Your task to perform on an android device: Search for the best movies of 2019  Image 0: 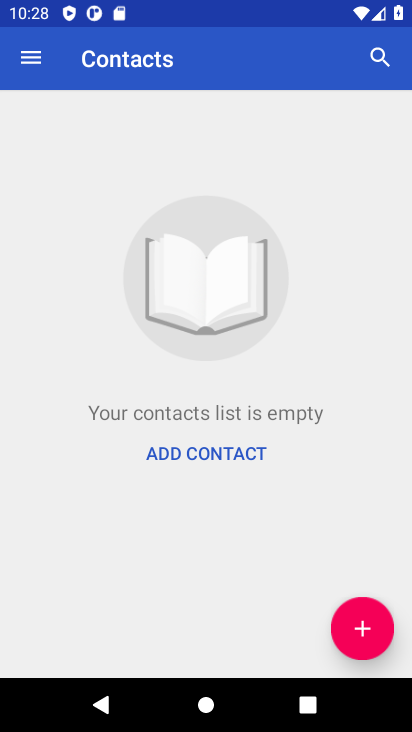
Step 0: press home button
Your task to perform on an android device: Search for the best movies of 2019  Image 1: 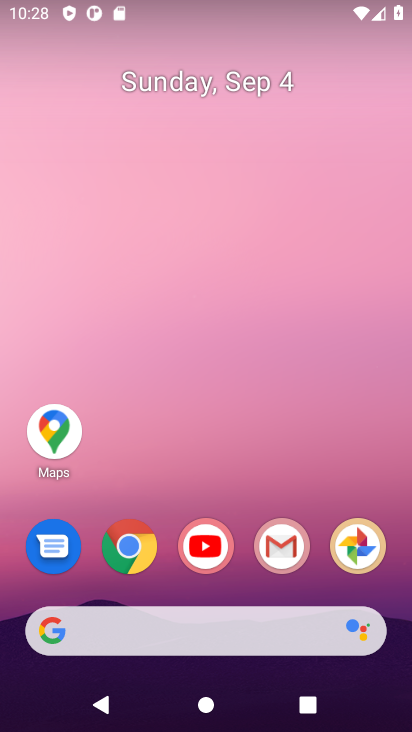
Step 1: click (121, 549)
Your task to perform on an android device: Search for the best movies of 2019  Image 2: 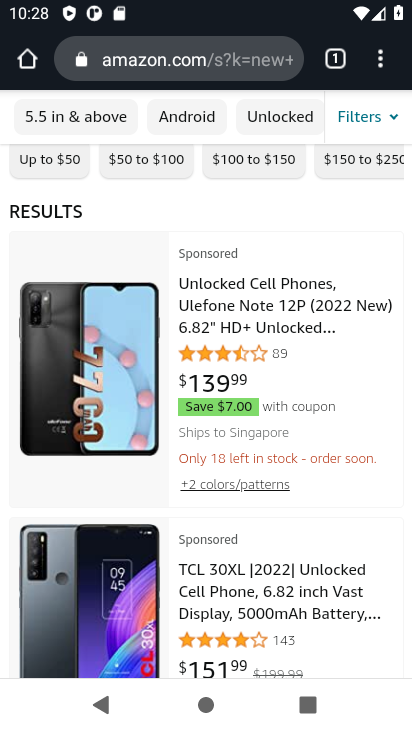
Step 2: click (171, 43)
Your task to perform on an android device: Search for the best movies of 2019  Image 3: 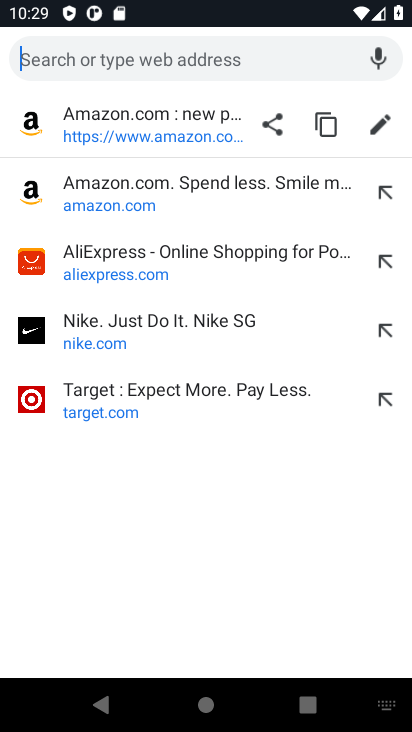
Step 3: type "best movies of 2019"
Your task to perform on an android device: Search for the best movies of 2019  Image 4: 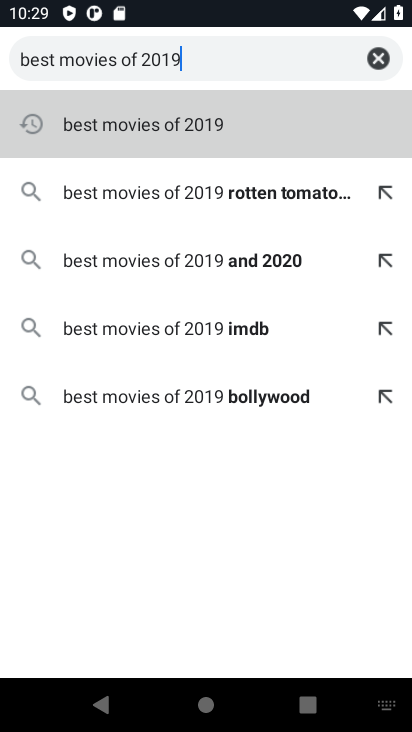
Step 4: click (160, 135)
Your task to perform on an android device: Search for the best movies of 2019  Image 5: 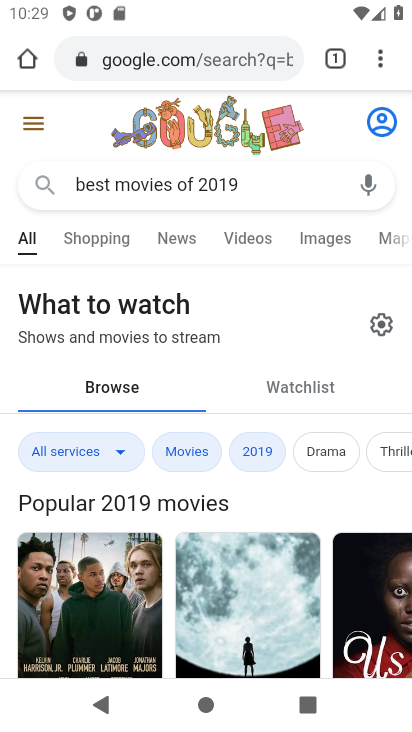
Step 5: task complete